Your task to perform on an android device: Open network settings Image 0: 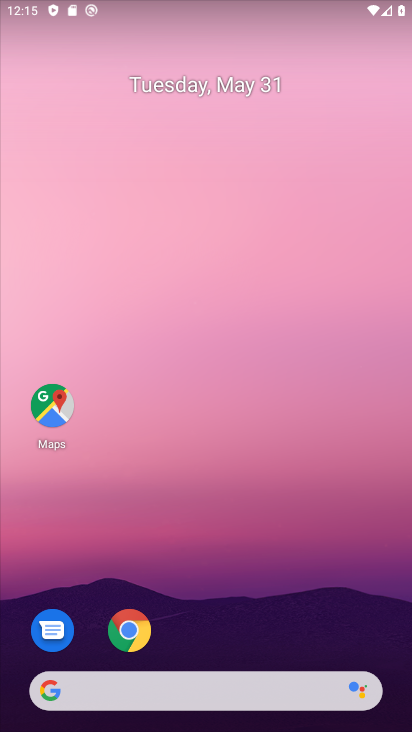
Step 0: click (202, 236)
Your task to perform on an android device: Open network settings Image 1: 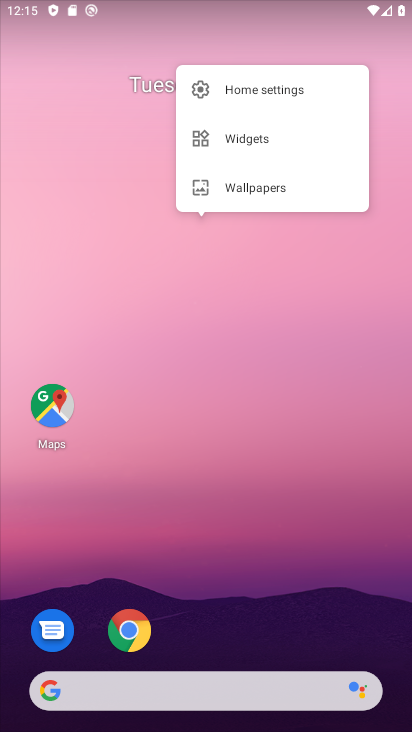
Step 1: click (187, 628)
Your task to perform on an android device: Open network settings Image 2: 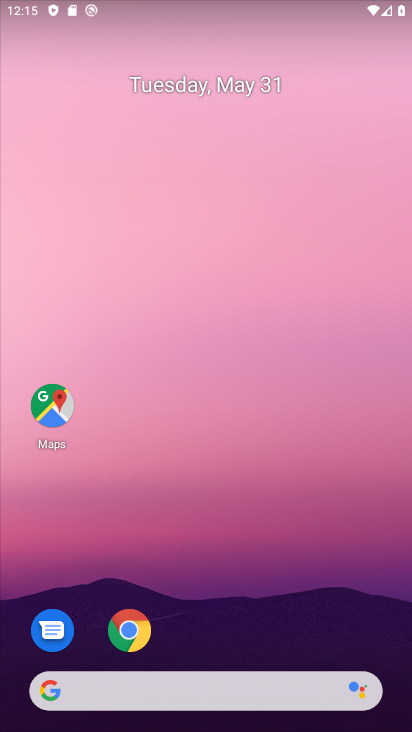
Step 2: drag from (195, 597) to (221, 210)
Your task to perform on an android device: Open network settings Image 3: 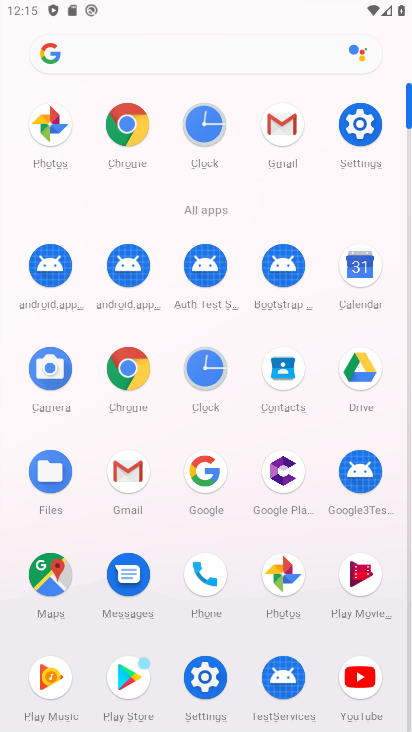
Step 3: click (204, 680)
Your task to perform on an android device: Open network settings Image 4: 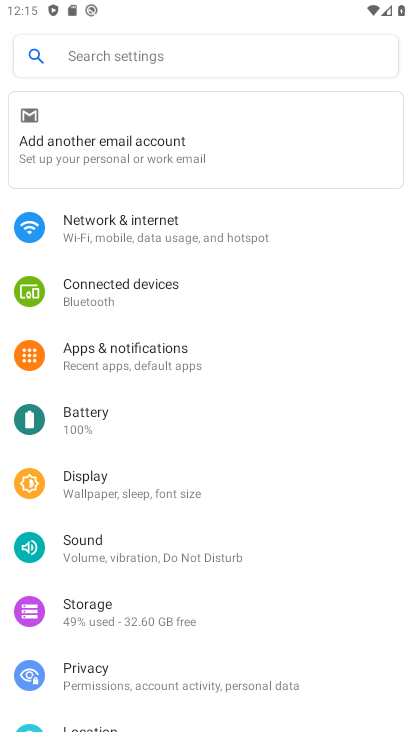
Step 4: click (167, 219)
Your task to perform on an android device: Open network settings Image 5: 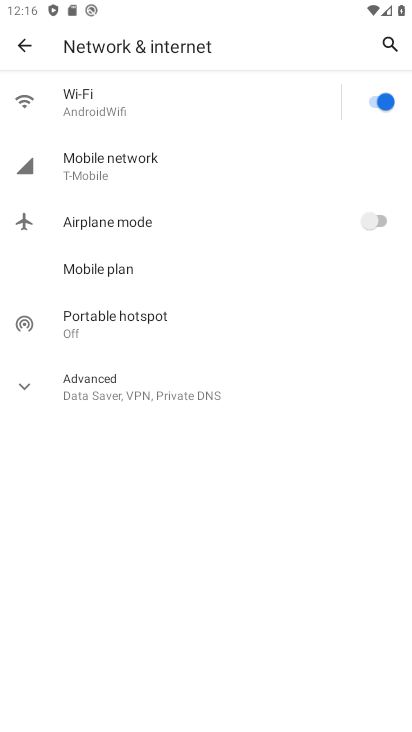
Step 5: task complete